Your task to perform on an android device: turn on javascript in the chrome app Image 0: 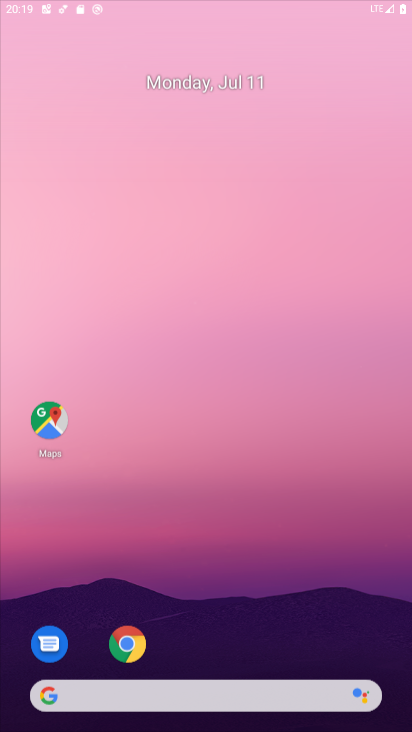
Step 0: drag from (210, 655) to (219, 230)
Your task to perform on an android device: turn on javascript in the chrome app Image 1: 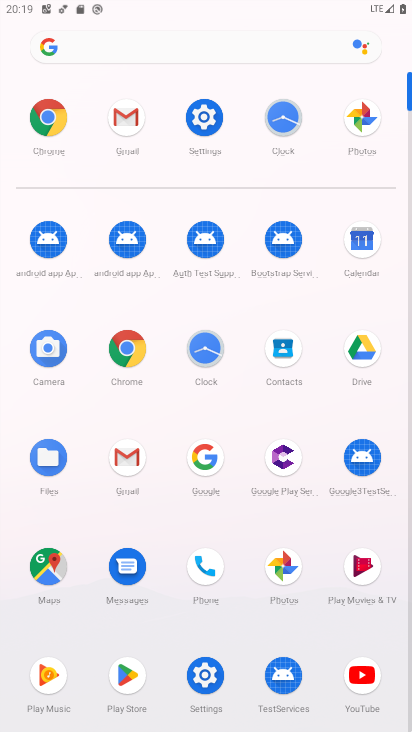
Step 1: click (47, 113)
Your task to perform on an android device: turn on javascript in the chrome app Image 2: 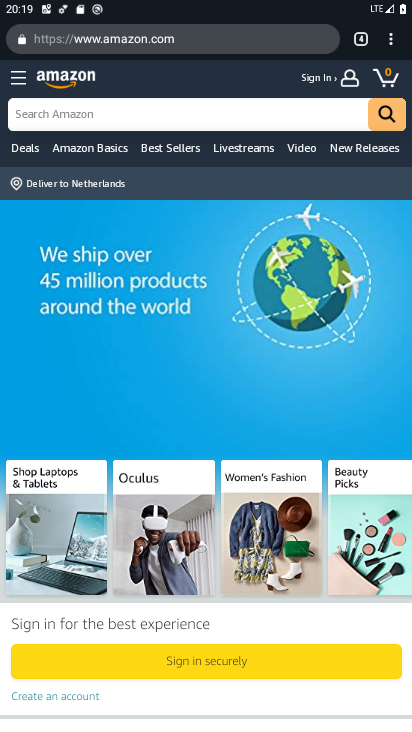
Step 2: click (393, 38)
Your task to perform on an android device: turn on javascript in the chrome app Image 3: 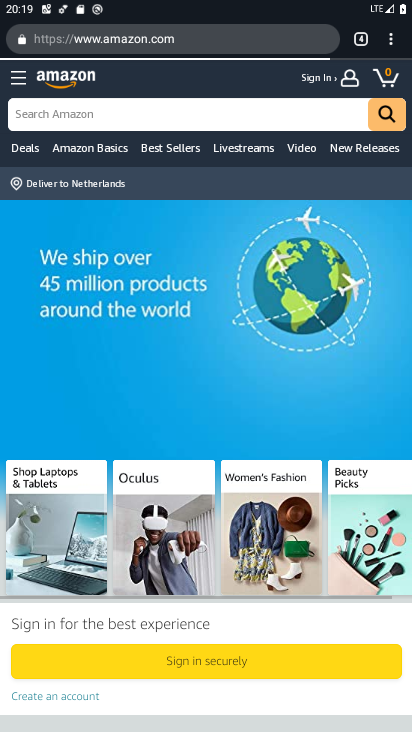
Step 3: click (393, 38)
Your task to perform on an android device: turn on javascript in the chrome app Image 4: 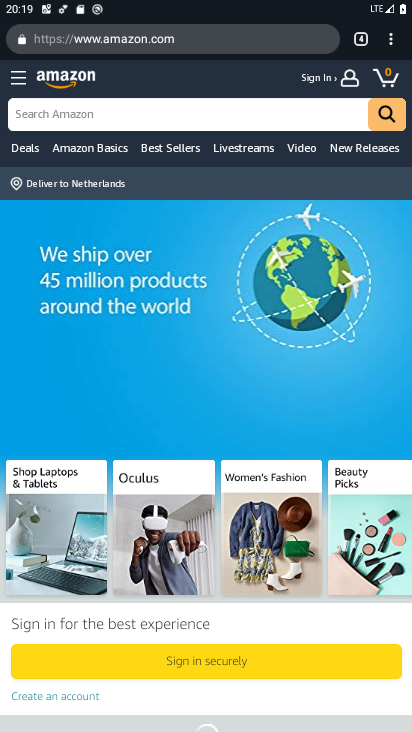
Step 4: click (393, 38)
Your task to perform on an android device: turn on javascript in the chrome app Image 5: 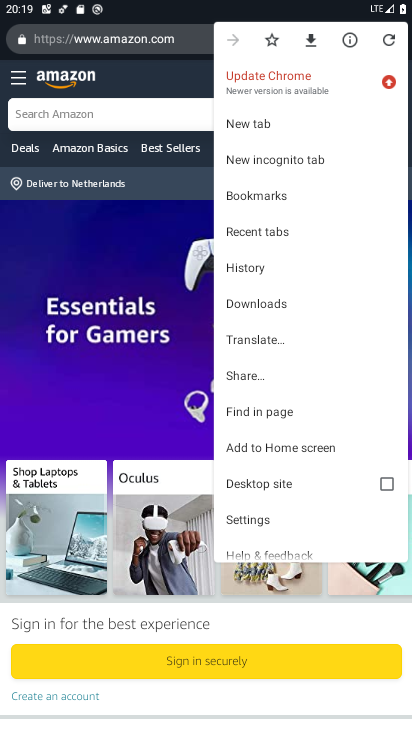
Step 5: click (278, 518)
Your task to perform on an android device: turn on javascript in the chrome app Image 6: 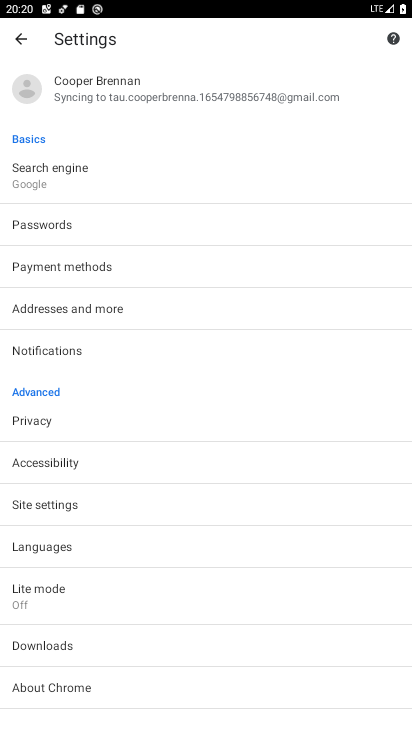
Step 6: click (96, 497)
Your task to perform on an android device: turn on javascript in the chrome app Image 7: 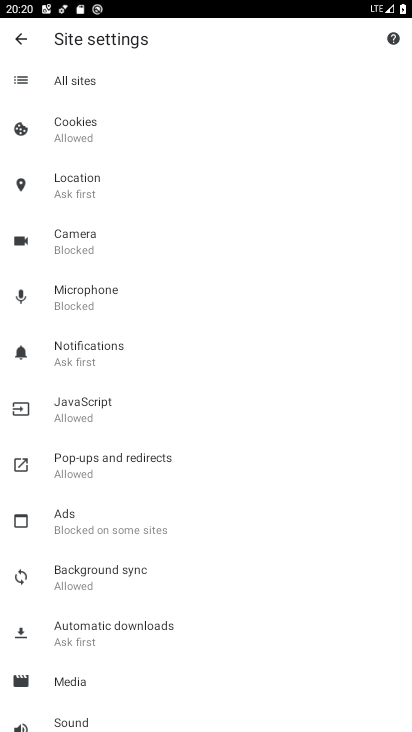
Step 7: click (144, 417)
Your task to perform on an android device: turn on javascript in the chrome app Image 8: 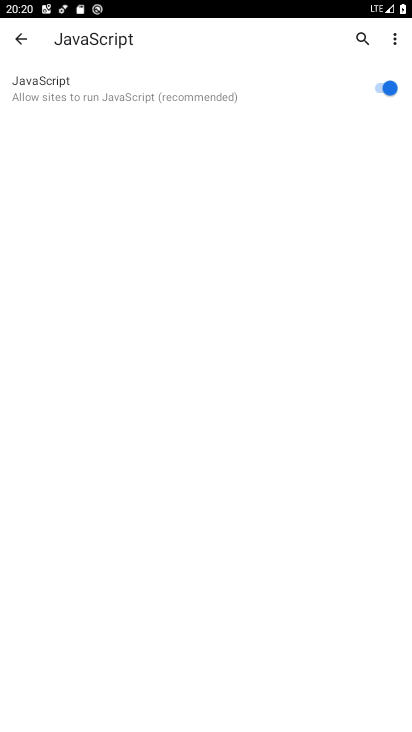
Step 8: task complete